Your task to perform on an android device: set default search engine in the chrome app Image 0: 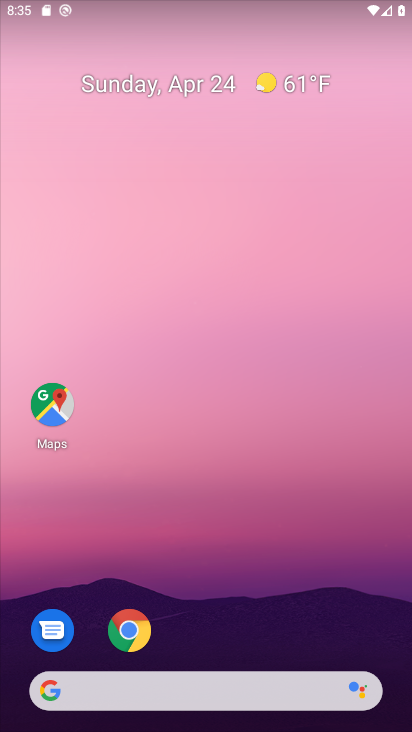
Step 0: drag from (354, 615) to (333, 58)
Your task to perform on an android device: set default search engine in the chrome app Image 1: 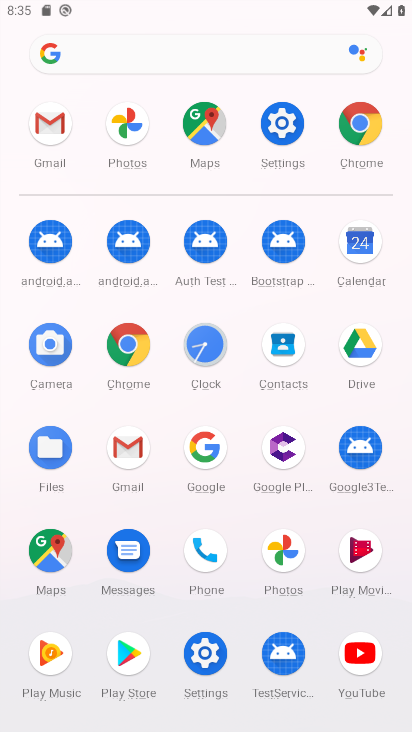
Step 1: click (368, 125)
Your task to perform on an android device: set default search engine in the chrome app Image 2: 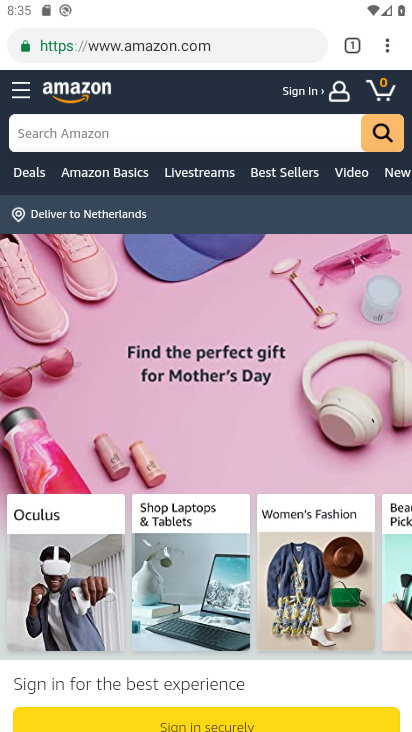
Step 2: click (387, 50)
Your task to perform on an android device: set default search engine in the chrome app Image 3: 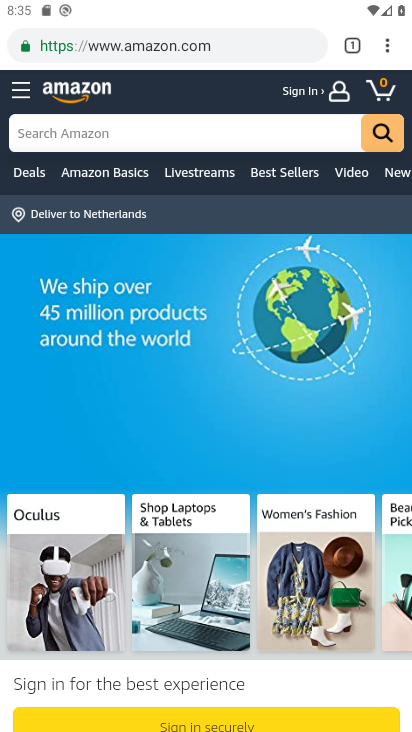
Step 3: click (389, 52)
Your task to perform on an android device: set default search engine in the chrome app Image 4: 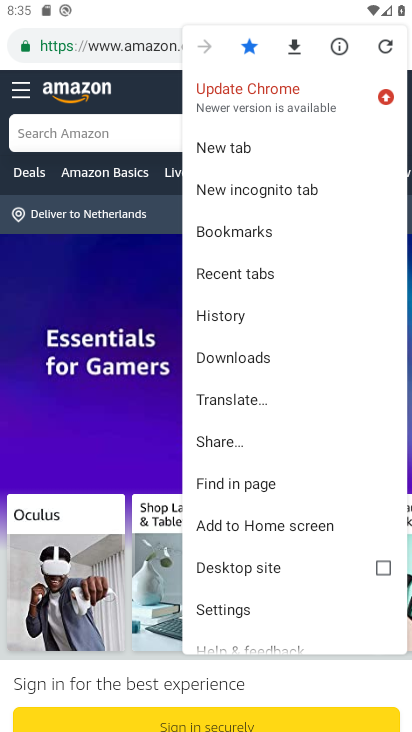
Step 4: drag from (348, 469) to (365, 280)
Your task to perform on an android device: set default search engine in the chrome app Image 5: 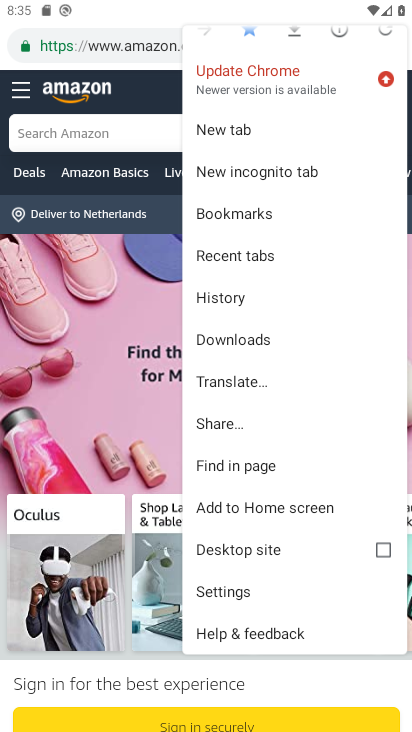
Step 5: click (252, 599)
Your task to perform on an android device: set default search engine in the chrome app Image 6: 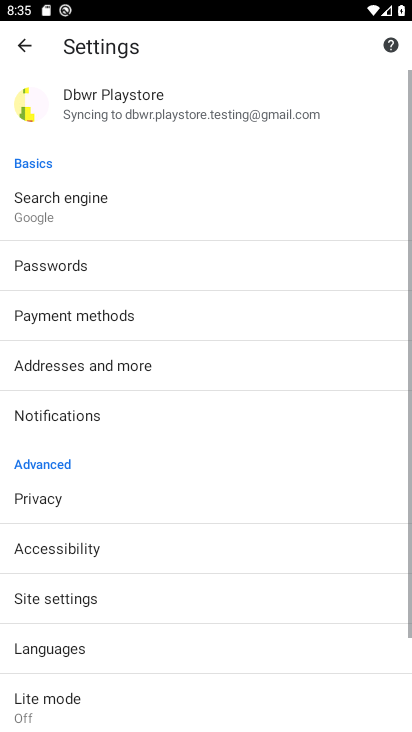
Step 6: drag from (304, 575) to (300, 281)
Your task to perform on an android device: set default search engine in the chrome app Image 7: 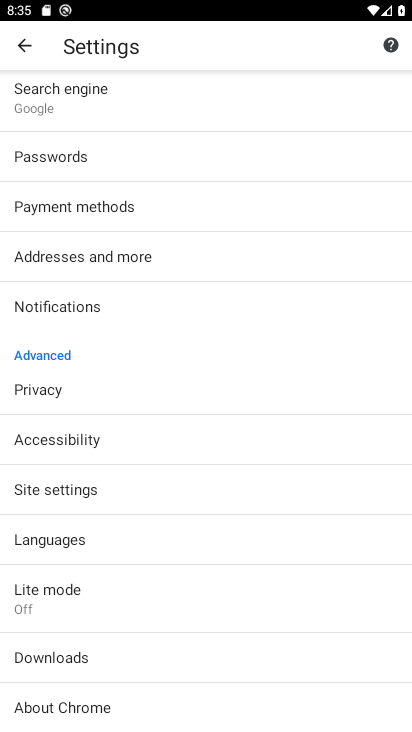
Step 7: drag from (325, 271) to (325, 498)
Your task to perform on an android device: set default search engine in the chrome app Image 8: 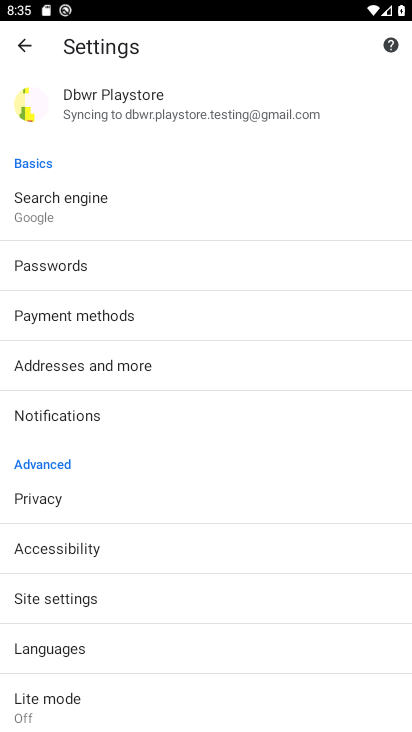
Step 8: click (197, 222)
Your task to perform on an android device: set default search engine in the chrome app Image 9: 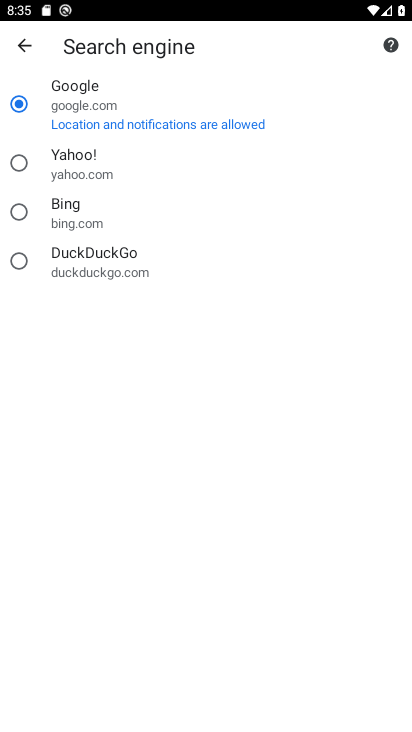
Step 9: click (54, 209)
Your task to perform on an android device: set default search engine in the chrome app Image 10: 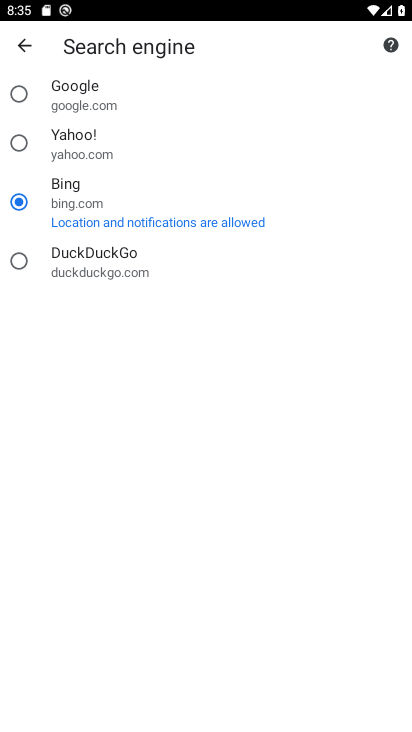
Step 10: task complete